Your task to perform on an android device: Add "alienware area 51" to the cart on amazon Image 0: 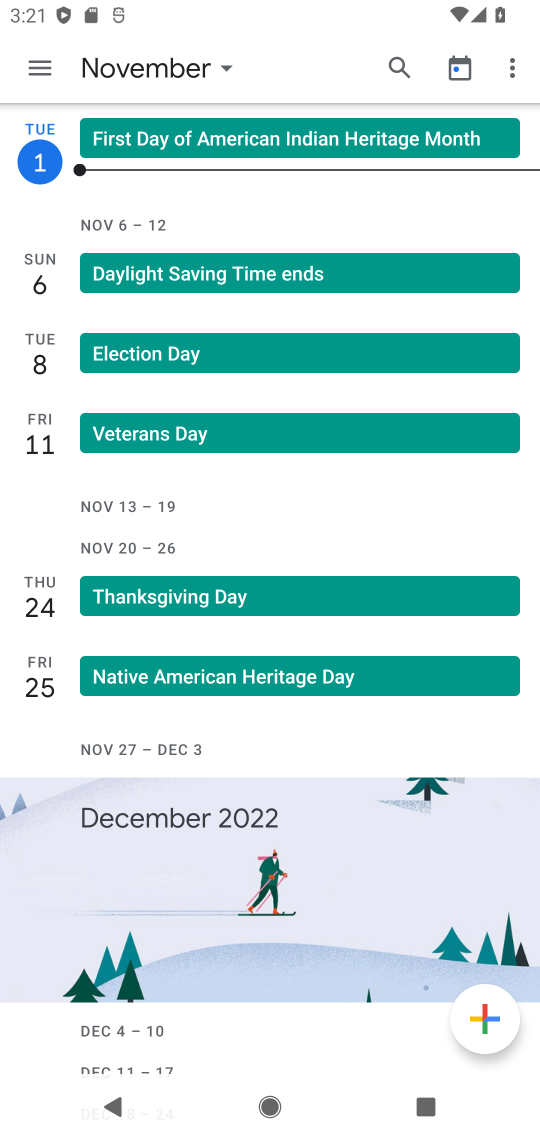
Step 0: press home button
Your task to perform on an android device: Add "alienware area 51" to the cart on amazon Image 1: 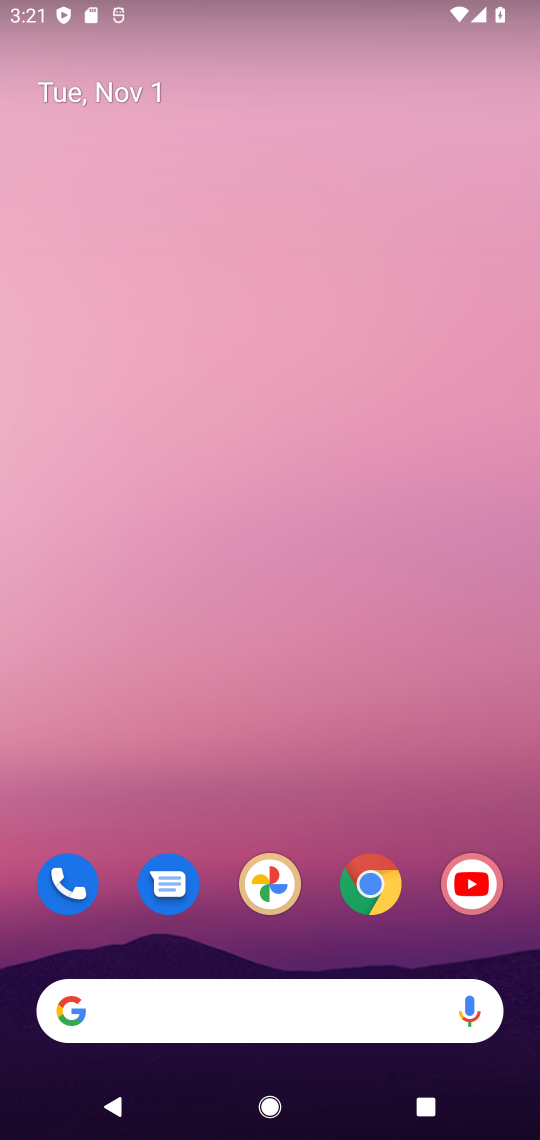
Step 1: click (381, 870)
Your task to perform on an android device: Add "alienware area 51" to the cart on amazon Image 2: 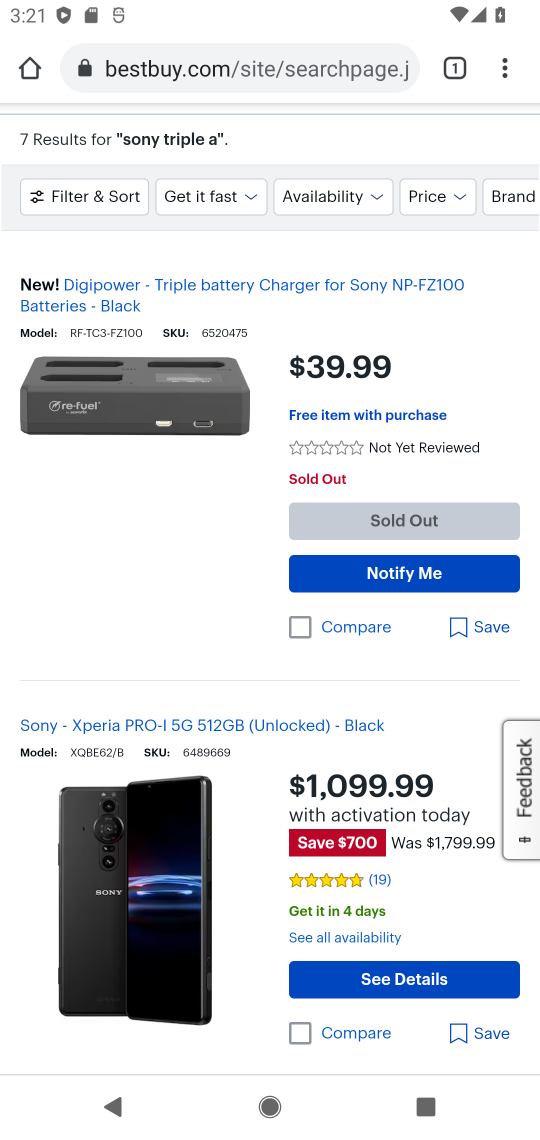
Step 2: click (350, 68)
Your task to perform on an android device: Add "alienware area 51" to the cart on amazon Image 3: 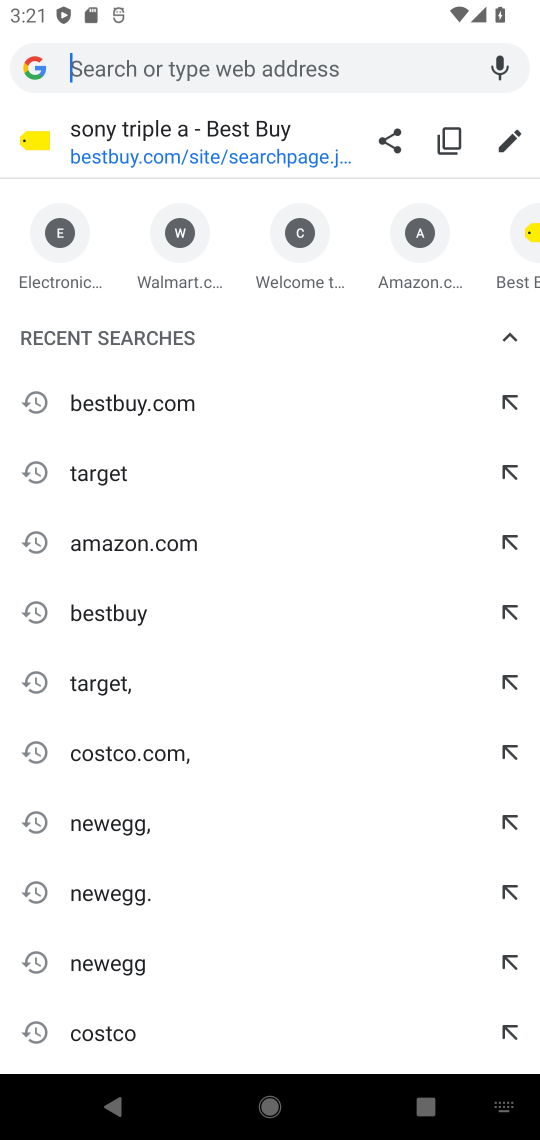
Step 3: type "amazon"
Your task to perform on an android device: Add "alienware area 51" to the cart on amazon Image 4: 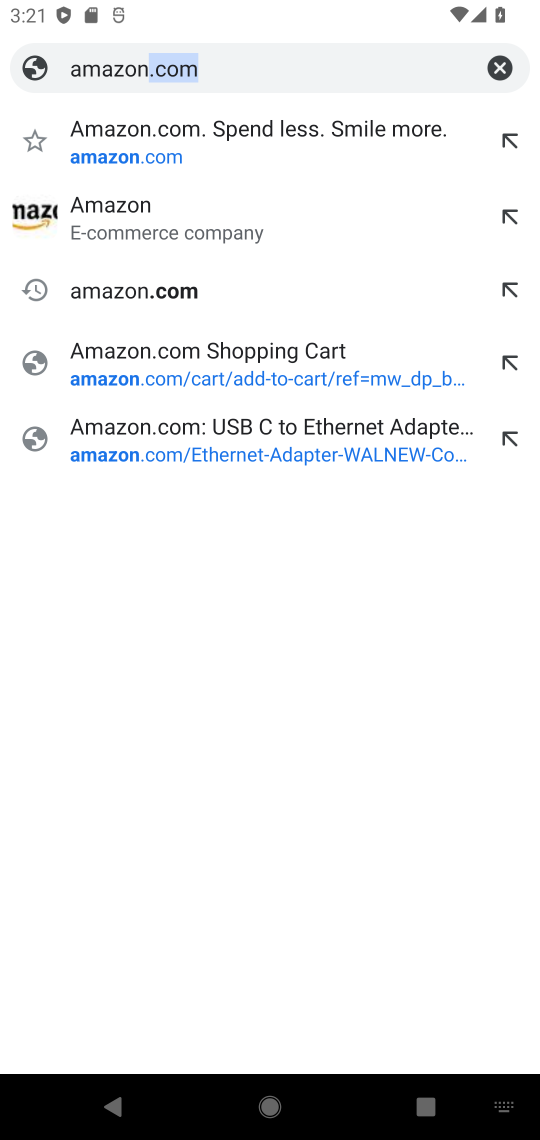
Step 4: click (182, 288)
Your task to perform on an android device: Add "alienware area 51" to the cart on amazon Image 5: 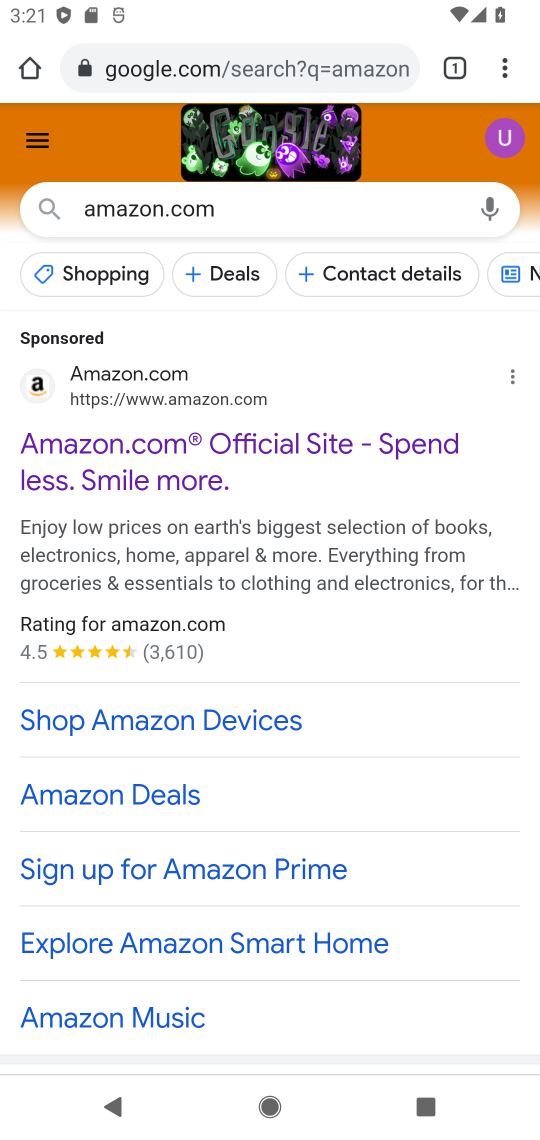
Step 5: click (174, 377)
Your task to perform on an android device: Add "alienware area 51" to the cart on amazon Image 6: 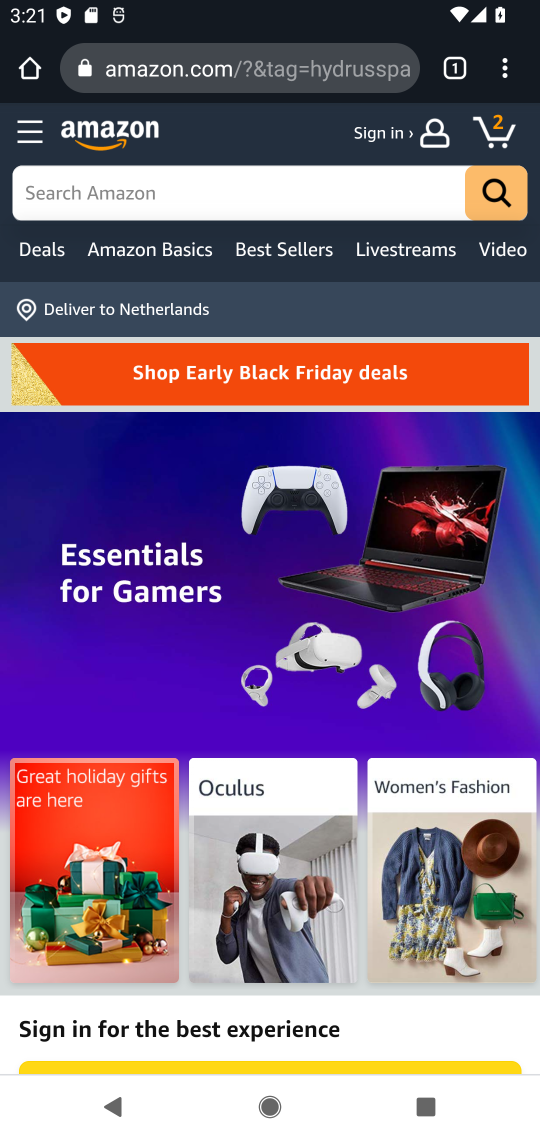
Step 6: click (344, 193)
Your task to perform on an android device: Add "alienware area 51" to the cart on amazon Image 7: 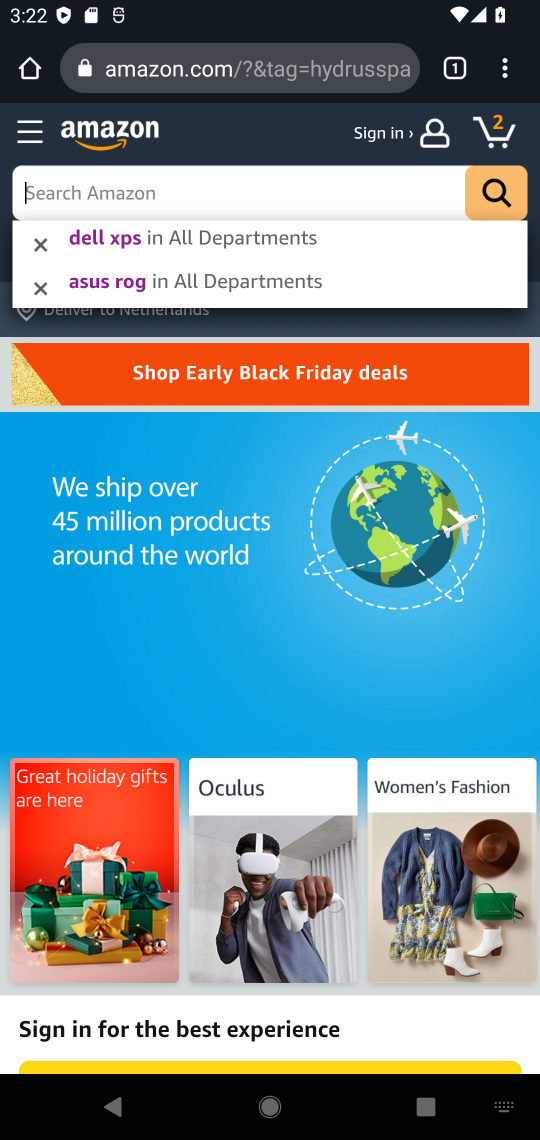
Step 7: type "alienware area 51"
Your task to perform on an android device: Add "alienware area 51" to the cart on amazon Image 8: 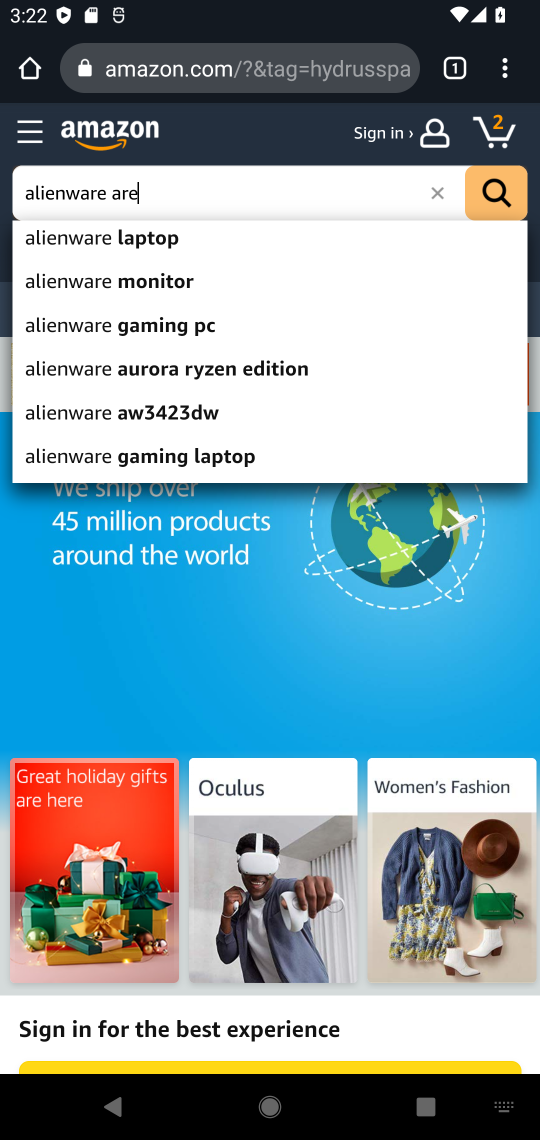
Step 8: press enter
Your task to perform on an android device: Add "alienware area 51" to the cart on amazon Image 9: 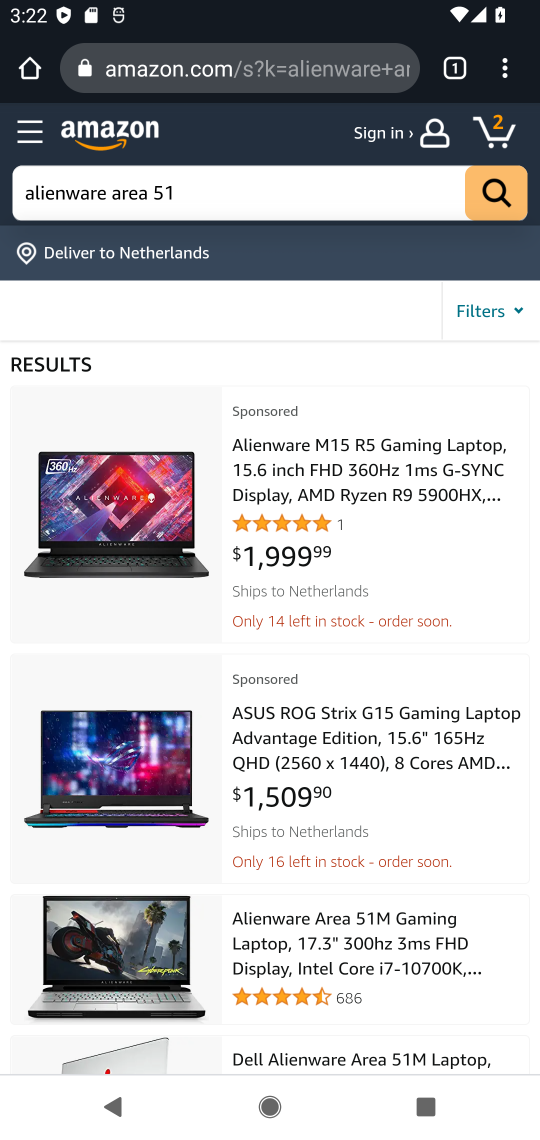
Step 9: click (131, 947)
Your task to perform on an android device: Add "alienware area 51" to the cart on amazon Image 10: 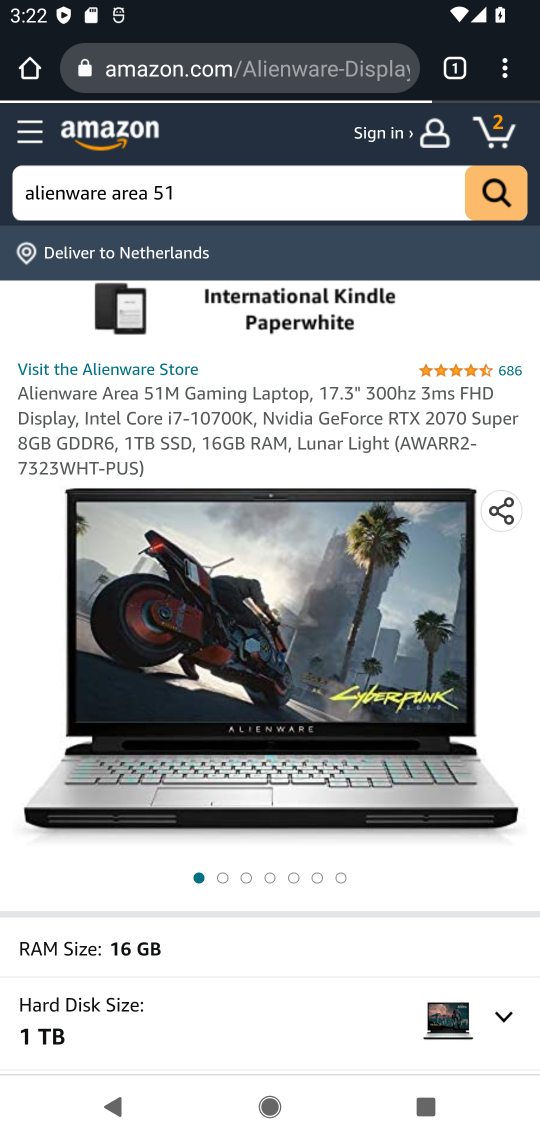
Step 10: drag from (364, 855) to (362, 438)
Your task to perform on an android device: Add "alienware area 51" to the cart on amazon Image 11: 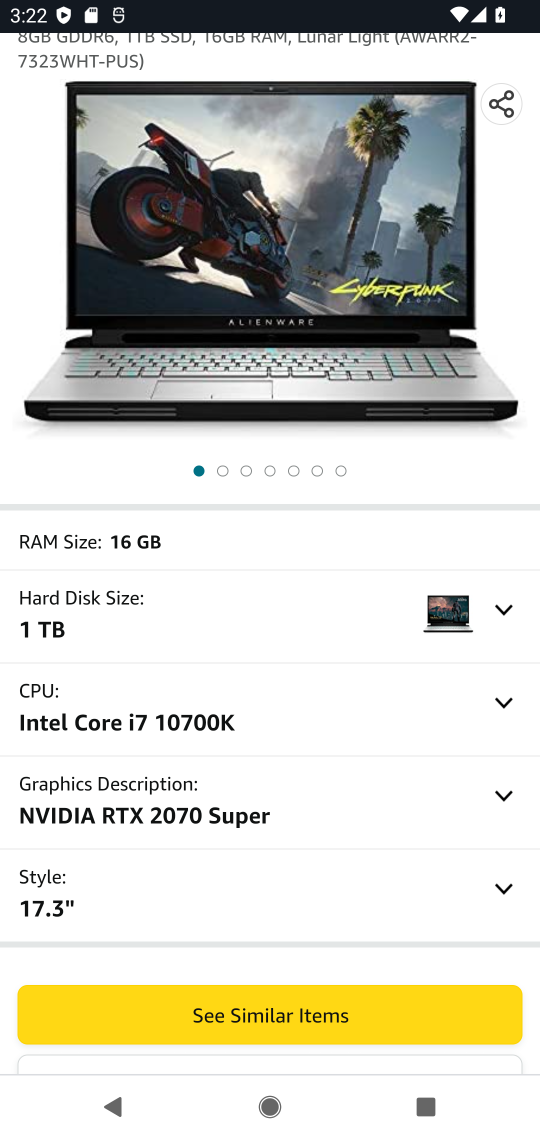
Step 11: drag from (377, 766) to (359, 433)
Your task to perform on an android device: Add "alienware area 51" to the cart on amazon Image 12: 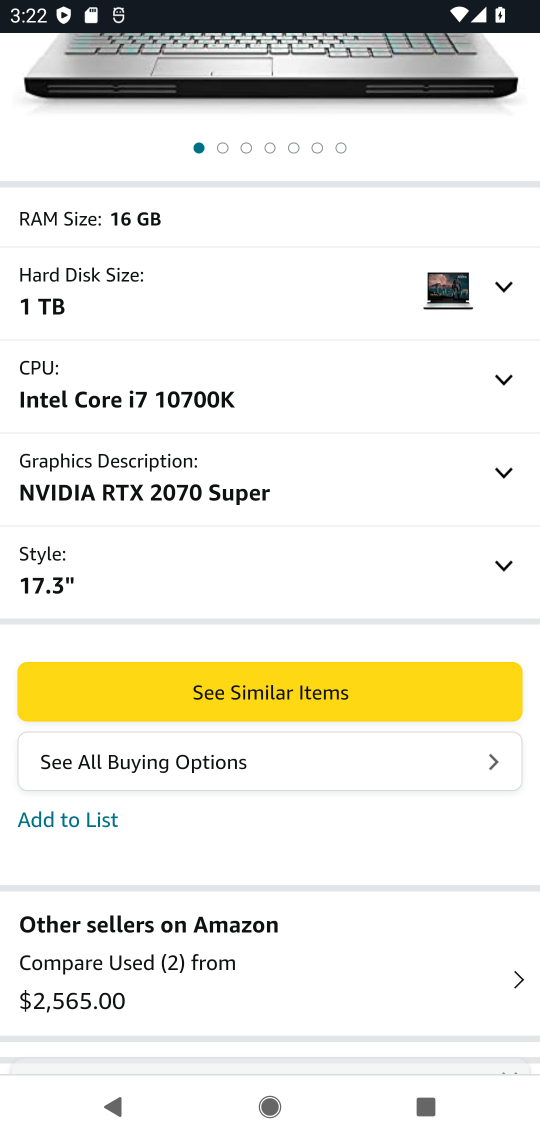
Step 12: click (78, 818)
Your task to perform on an android device: Add "alienware area 51" to the cart on amazon Image 13: 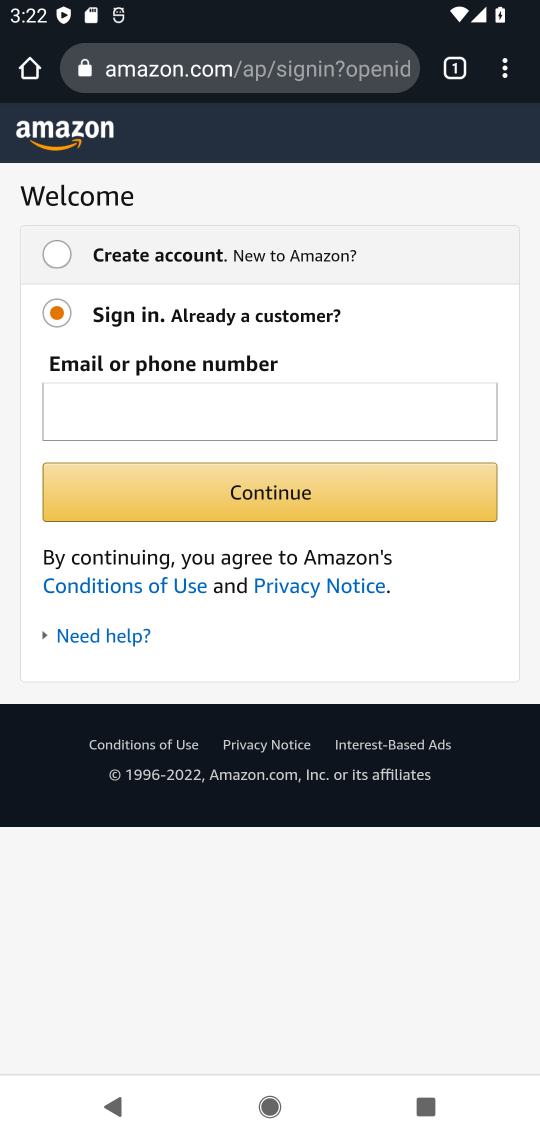
Step 13: task complete